Your task to perform on an android device: Go to Amazon Image 0: 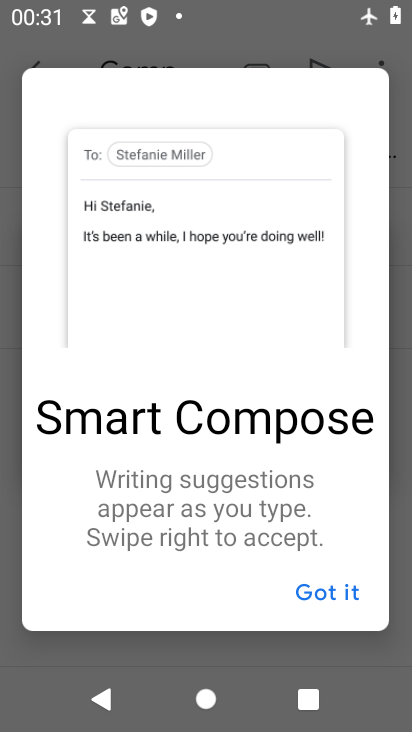
Step 0: press home button
Your task to perform on an android device: Go to Amazon Image 1: 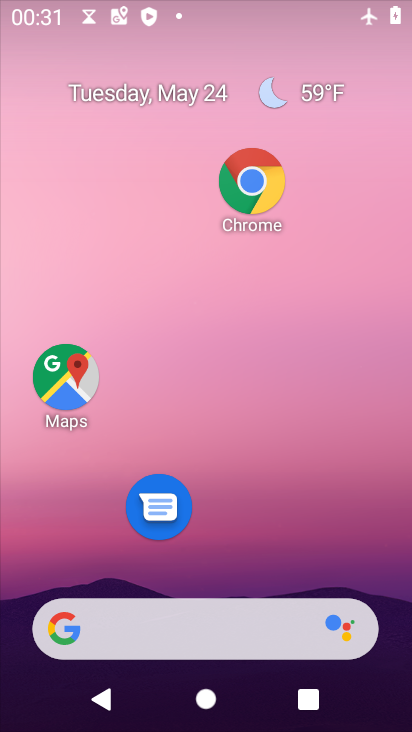
Step 1: drag from (256, 524) to (314, 268)
Your task to perform on an android device: Go to Amazon Image 2: 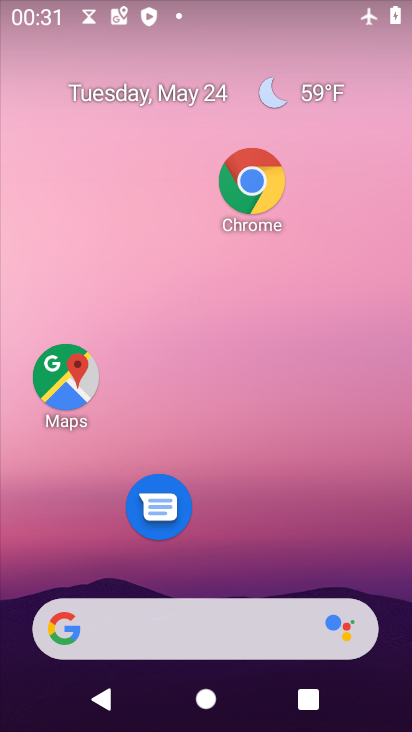
Step 2: drag from (275, 574) to (356, 252)
Your task to perform on an android device: Go to Amazon Image 3: 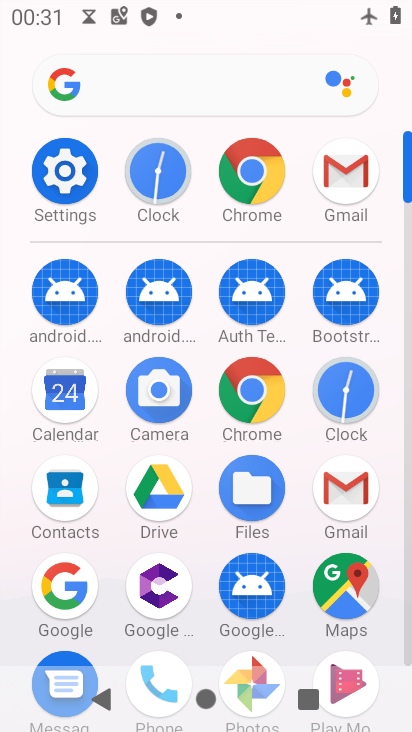
Step 3: click (258, 163)
Your task to perform on an android device: Go to Amazon Image 4: 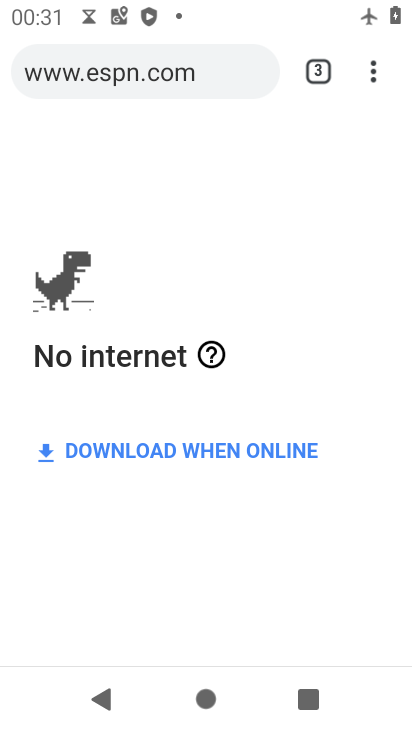
Step 4: click (375, 65)
Your task to perform on an android device: Go to Amazon Image 5: 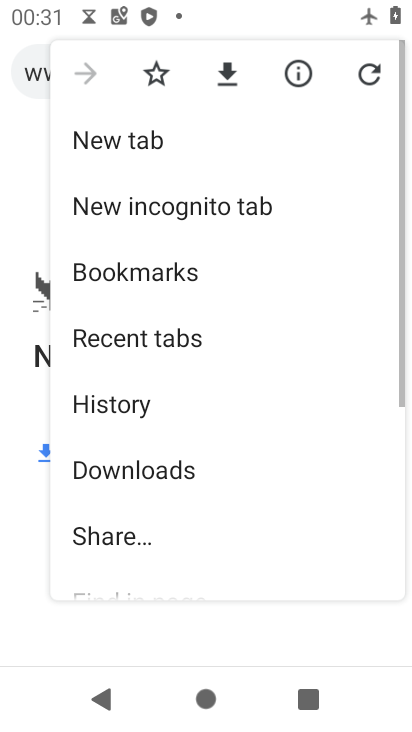
Step 5: click (162, 137)
Your task to perform on an android device: Go to Amazon Image 6: 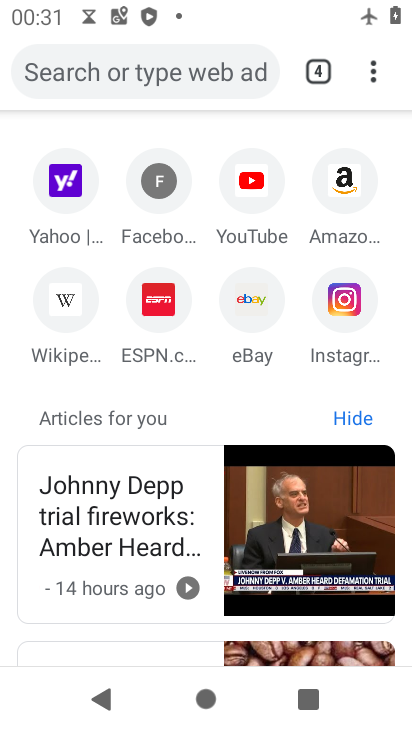
Step 6: click (366, 170)
Your task to perform on an android device: Go to Amazon Image 7: 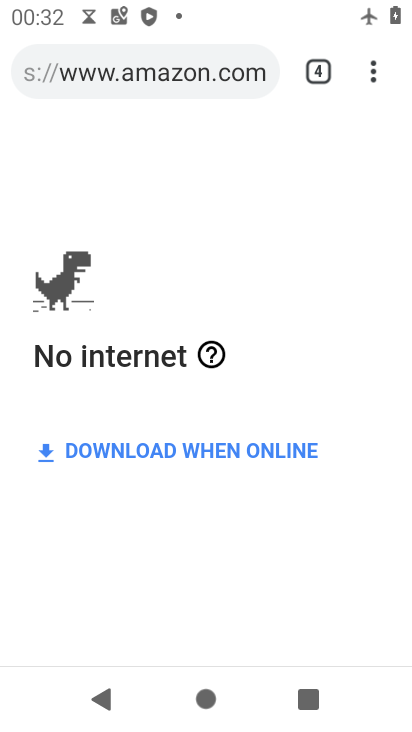
Step 7: task complete